Your task to perform on an android device: delete location history Image 0: 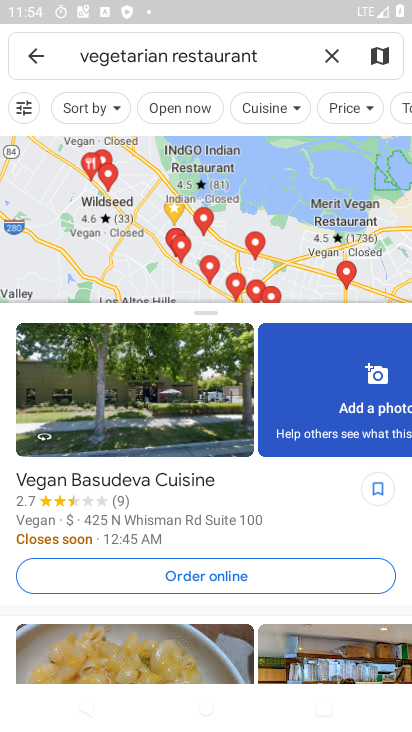
Step 0: press home button
Your task to perform on an android device: delete location history Image 1: 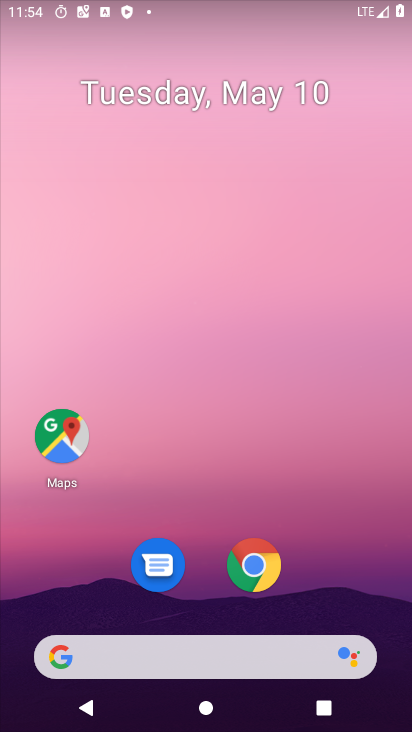
Step 1: drag from (240, 624) to (182, 210)
Your task to perform on an android device: delete location history Image 2: 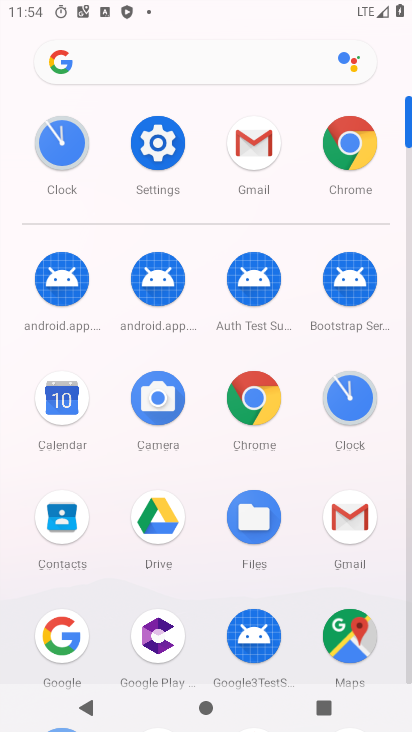
Step 2: click (165, 139)
Your task to perform on an android device: delete location history Image 3: 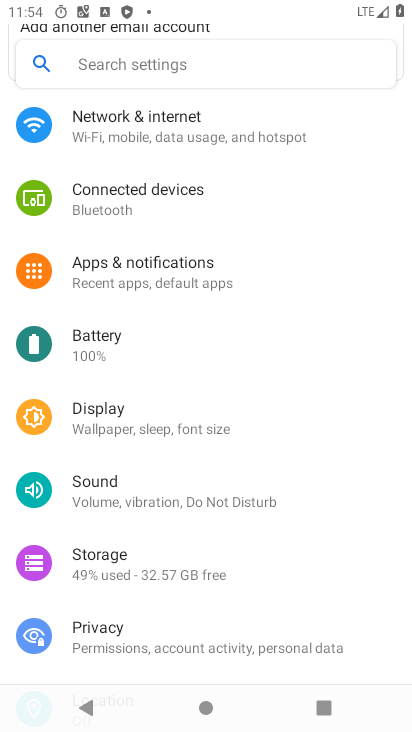
Step 3: drag from (127, 616) to (125, 432)
Your task to perform on an android device: delete location history Image 4: 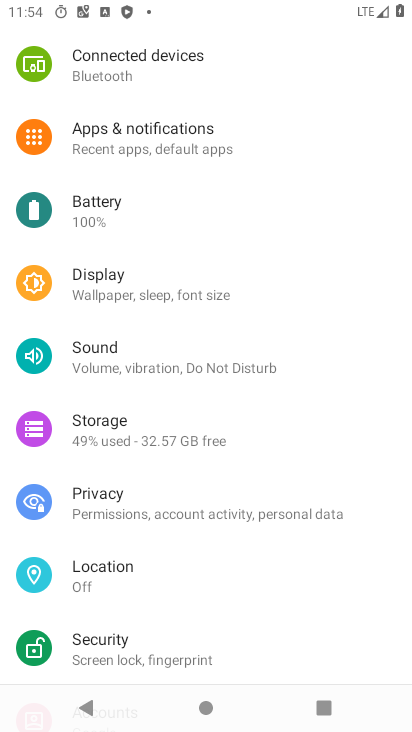
Step 4: click (139, 583)
Your task to perform on an android device: delete location history Image 5: 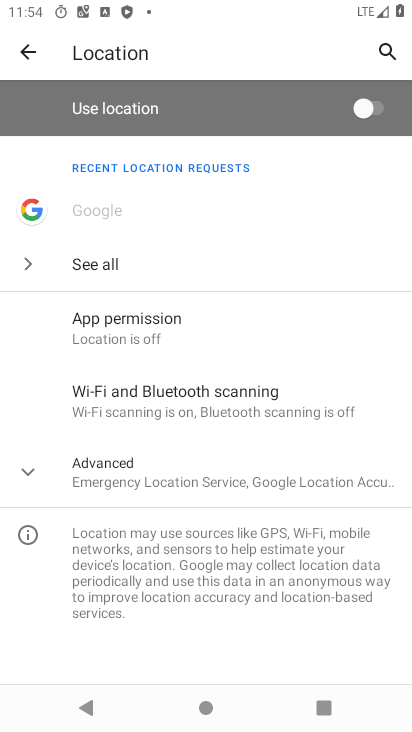
Step 5: click (170, 477)
Your task to perform on an android device: delete location history Image 6: 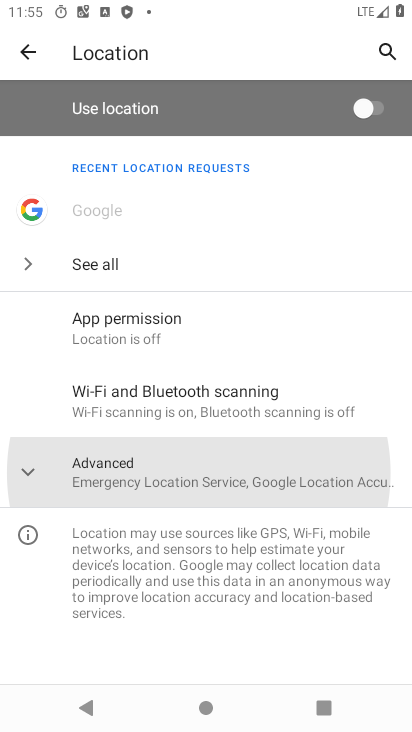
Step 6: drag from (170, 477) to (168, 234)
Your task to perform on an android device: delete location history Image 7: 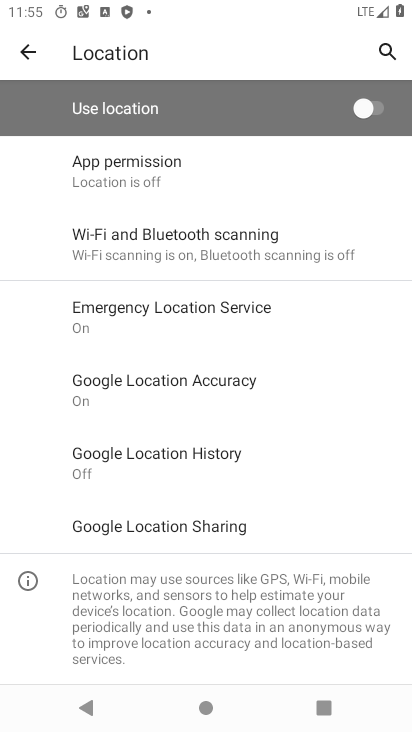
Step 7: click (160, 471)
Your task to perform on an android device: delete location history Image 8: 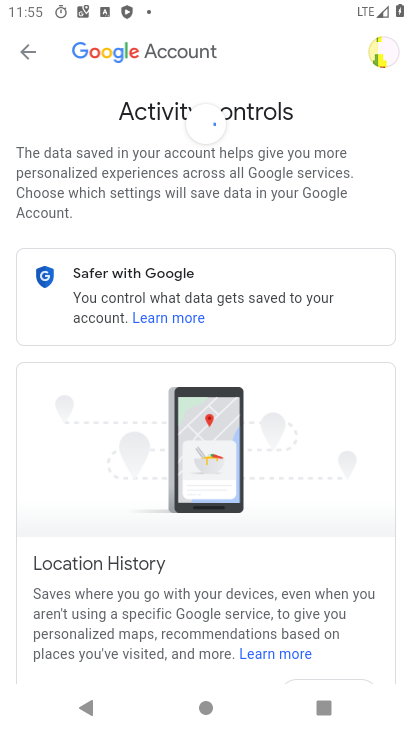
Step 8: drag from (227, 559) to (193, 255)
Your task to perform on an android device: delete location history Image 9: 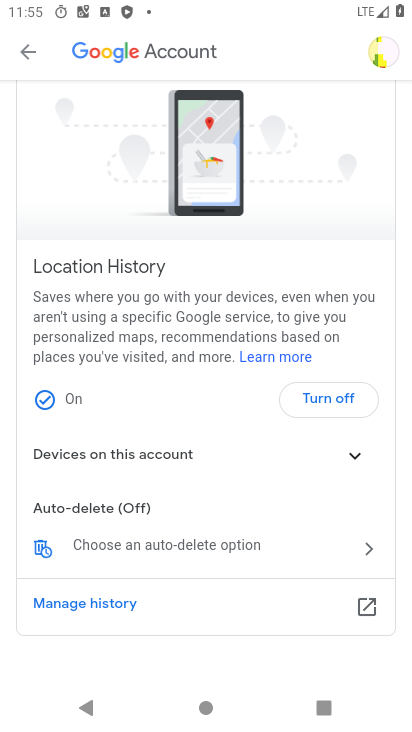
Step 9: click (113, 610)
Your task to perform on an android device: delete location history Image 10: 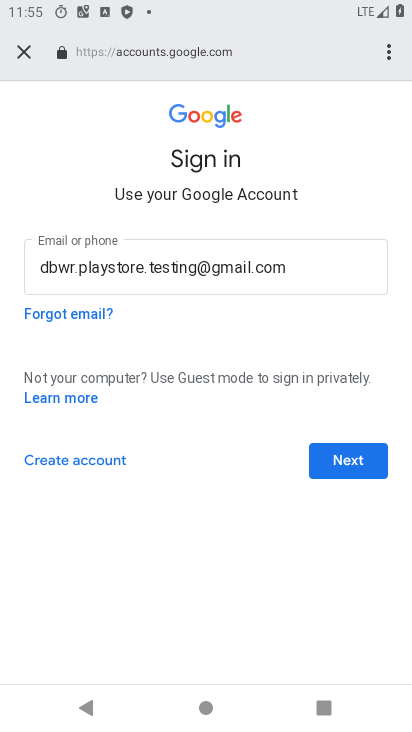
Step 10: press back button
Your task to perform on an android device: delete location history Image 11: 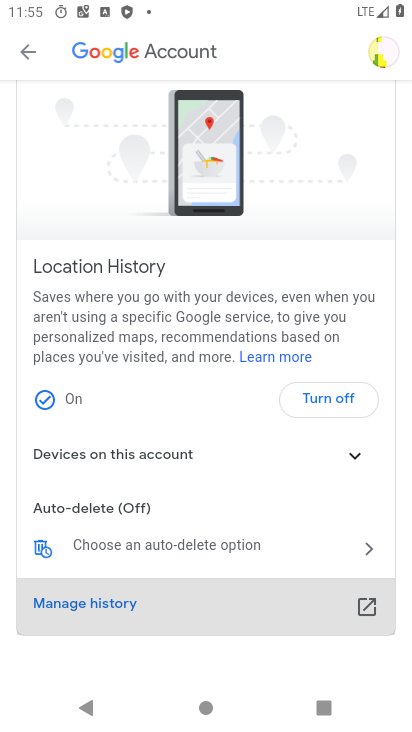
Step 11: click (164, 558)
Your task to perform on an android device: delete location history Image 12: 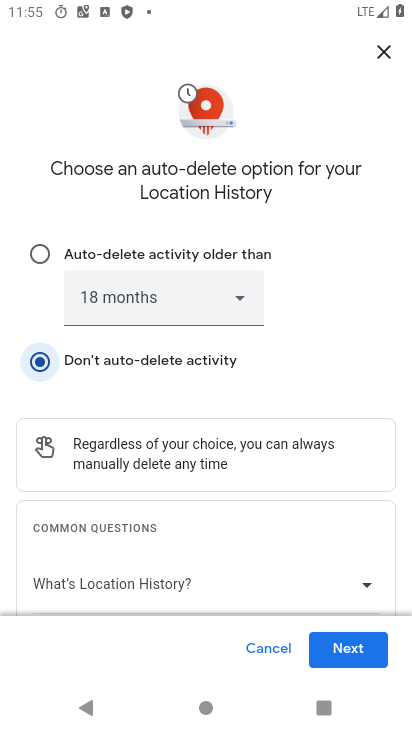
Step 12: click (48, 254)
Your task to perform on an android device: delete location history Image 13: 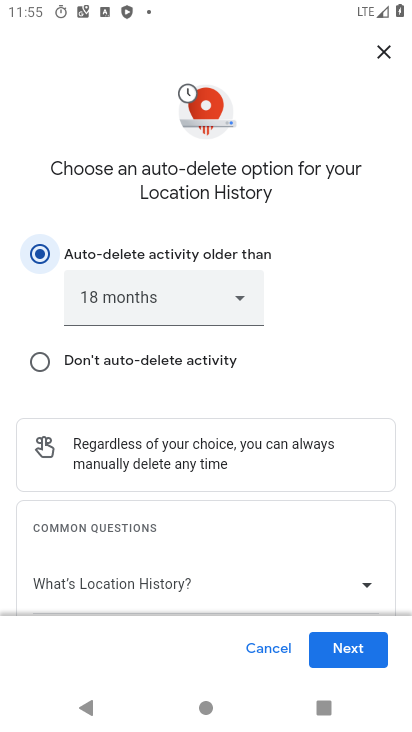
Step 13: click (349, 655)
Your task to perform on an android device: delete location history Image 14: 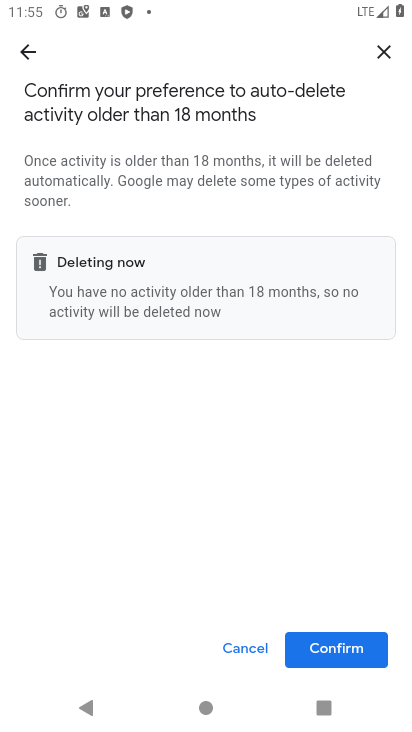
Step 14: click (349, 655)
Your task to perform on an android device: delete location history Image 15: 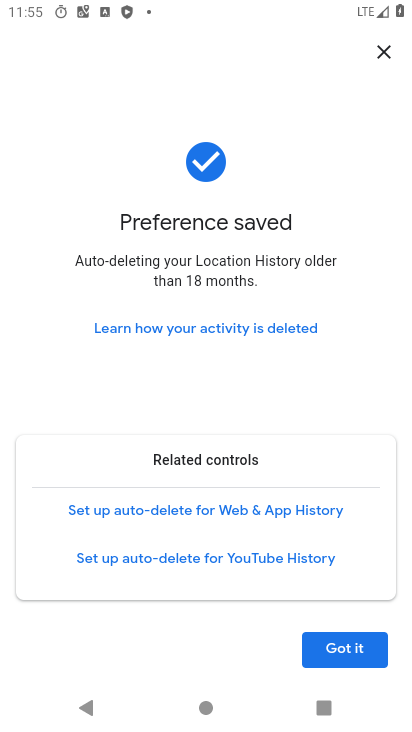
Step 15: click (373, 650)
Your task to perform on an android device: delete location history Image 16: 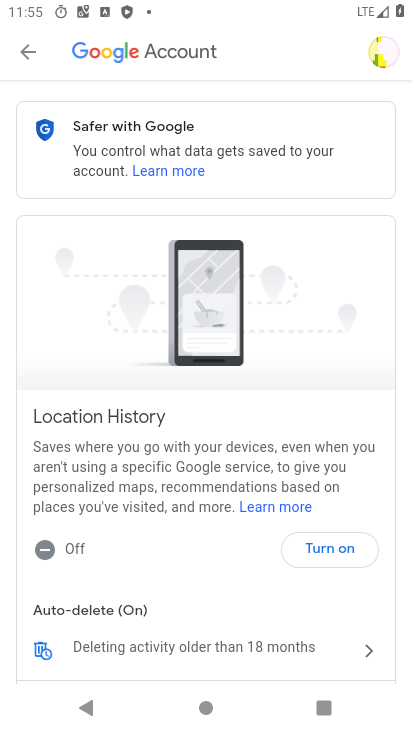
Step 16: task complete